Your task to perform on an android device: What's the weather going to be this weekend? Image 0: 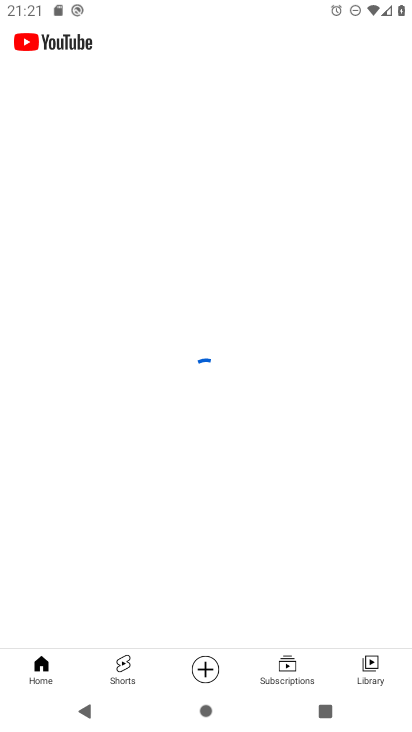
Step 0: press home button
Your task to perform on an android device: What's the weather going to be this weekend? Image 1: 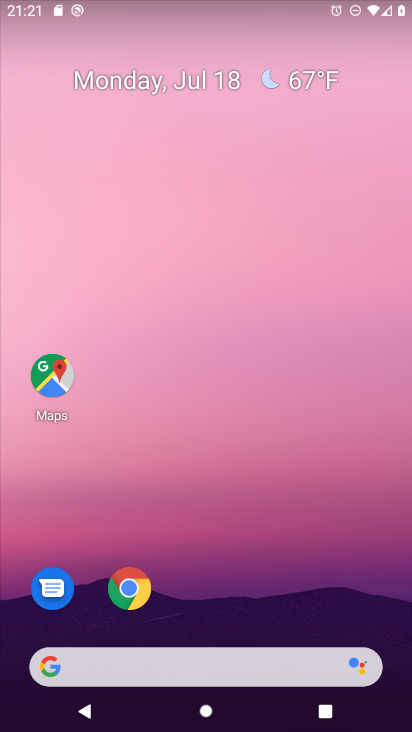
Step 1: drag from (6, 249) to (387, 239)
Your task to perform on an android device: What's the weather going to be this weekend? Image 2: 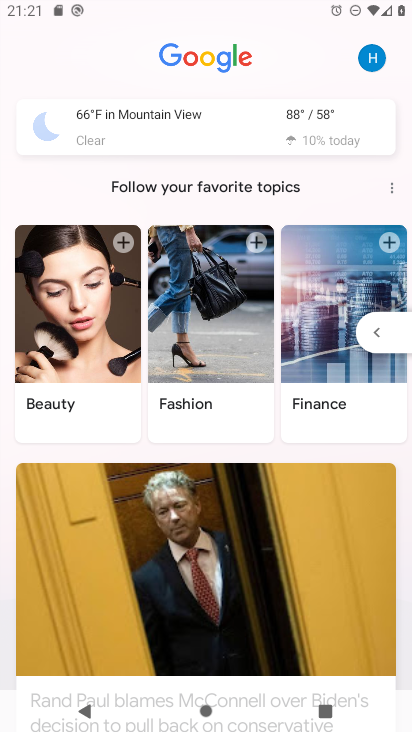
Step 2: click (319, 111)
Your task to perform on an android device: What's the weather going to be this weekend? Image 3: 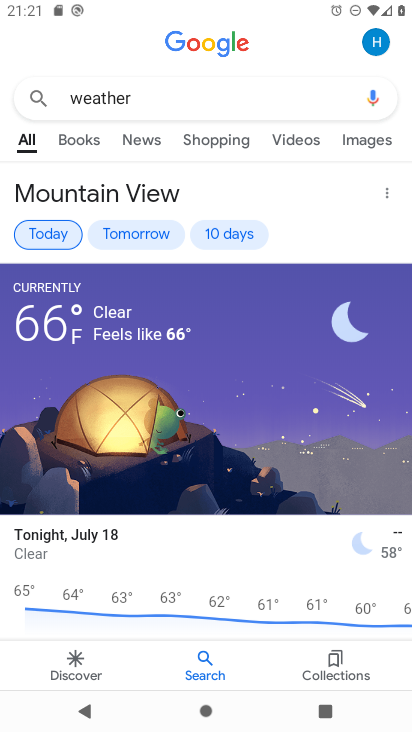
Step 3: click (239, 235)
Your task to perform on an android device: What's the weather going to be this weekend? Image 4: 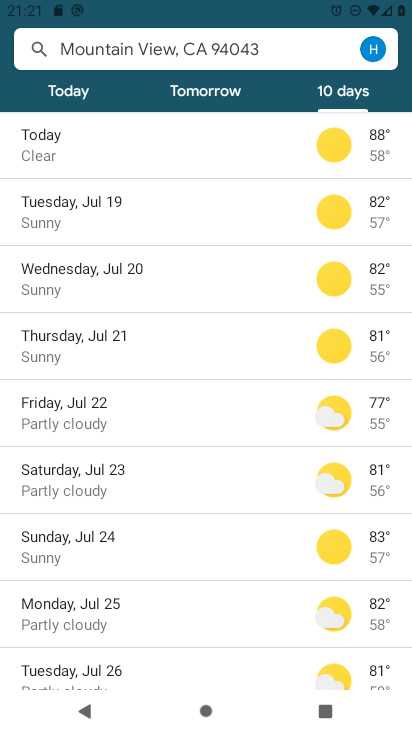
Step 4: task complete